Your task to perform on an android device: check out phone information Image 0: 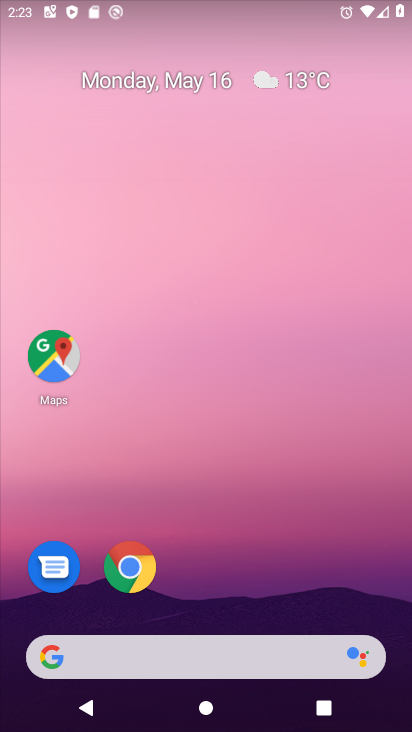
Step 0: drag from (227, 578) to (235, 52)
Your task to perform on an android device: check out phone information Image 1: 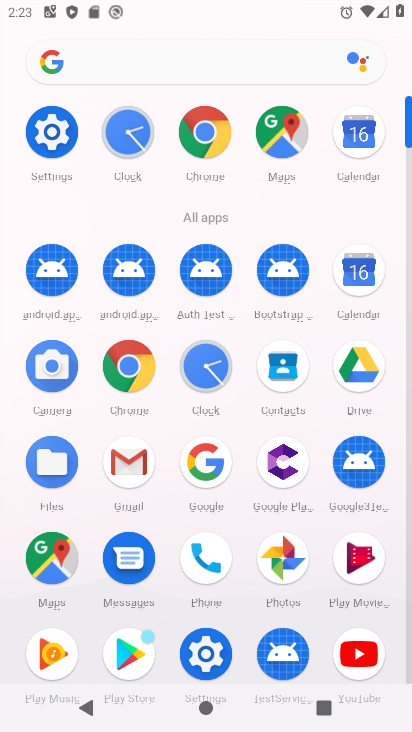
Step 1: click (218, 568)
Your task to perform on an android device: check out phone information Image 2: 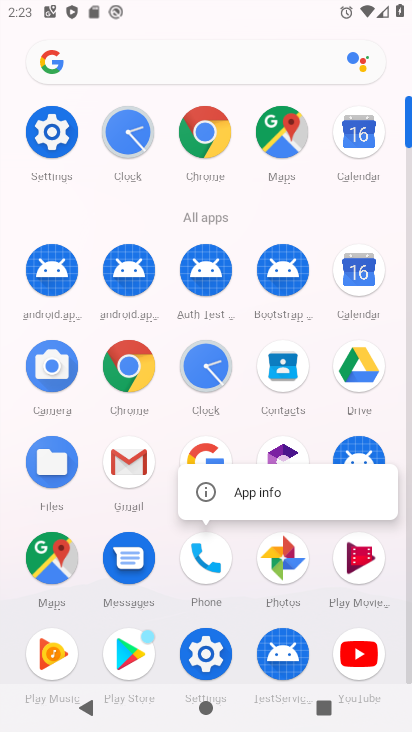
Step 2: click (251, 502)
Your task to perform on an android device: check out phone information Image 3: 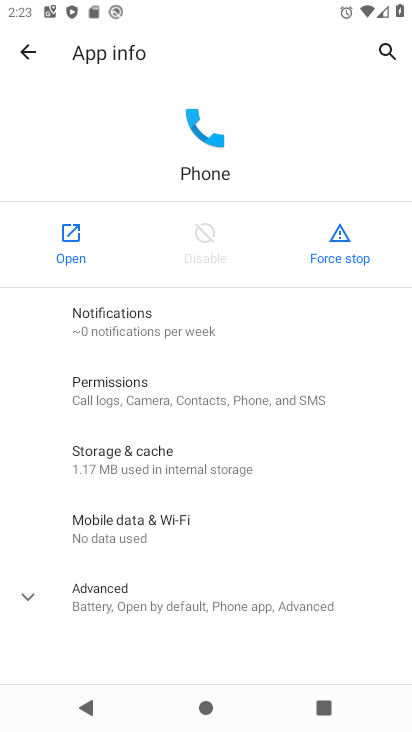
Step 3: task complete